Your task to perform on an android device: What is the recent news? Image 0: 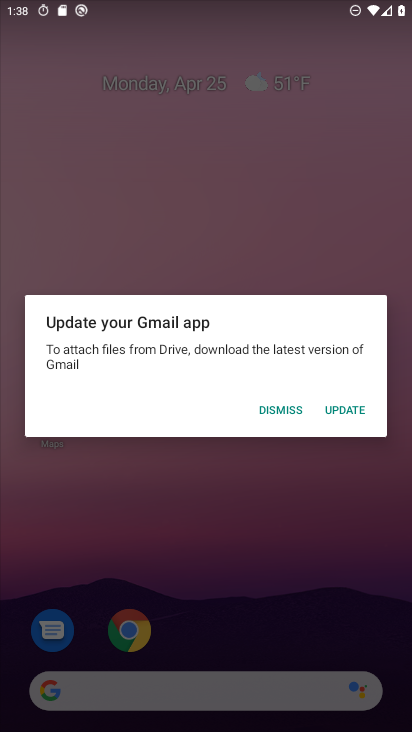
Step 0: drag from (197, 573) to (280, 291)
Your task to perform on an android device: What is the recent news? Image 1: 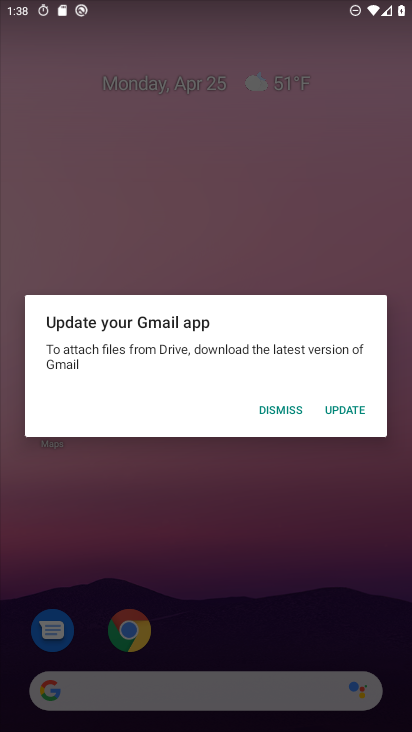
Step 1: drag from (236, 361) to (234, 212)
Your task to perform on an android device: What is the recent news? Image 2: 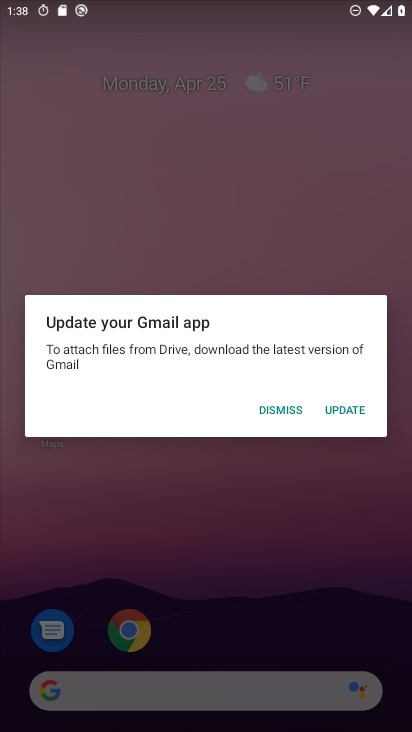
Step 2: drag from (194, 420) to (216, 224)
Your task to perform on an android device: What is the recent news? Image 3: 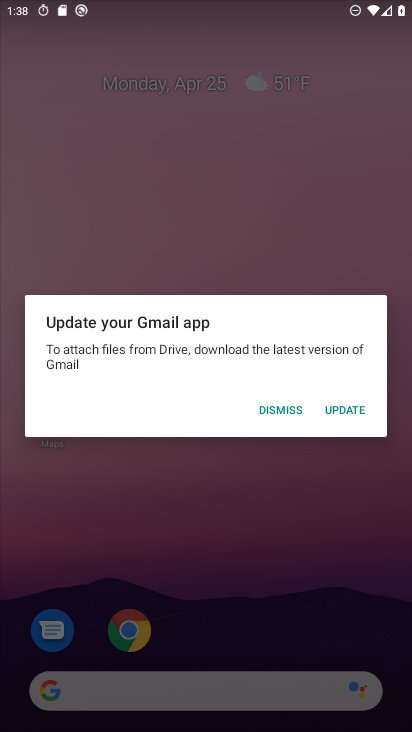
Step 3: press home button
Your task to perform on an android device: What is the recent news? Image 4: 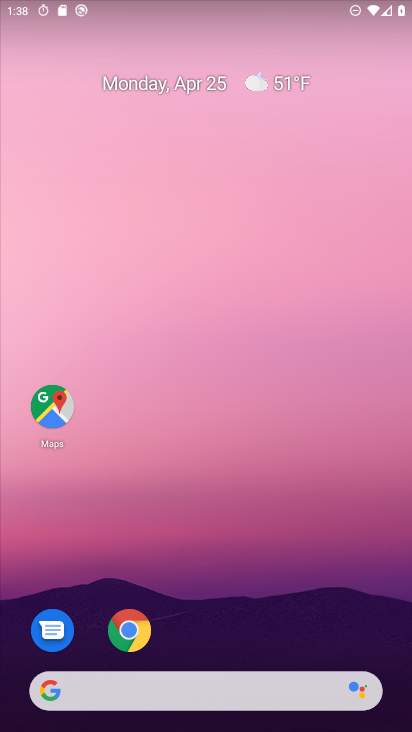
Step 4: drag from (203, 640) to (257, 108)
Your task to perform on an android device: What is the recent news? Image 5: 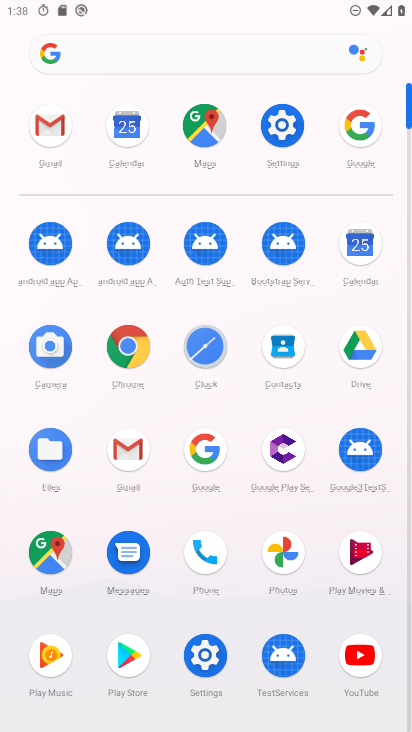
Step 5: click (152, 56)
Your task to perform on an android device: What is the recent news? Image 6: 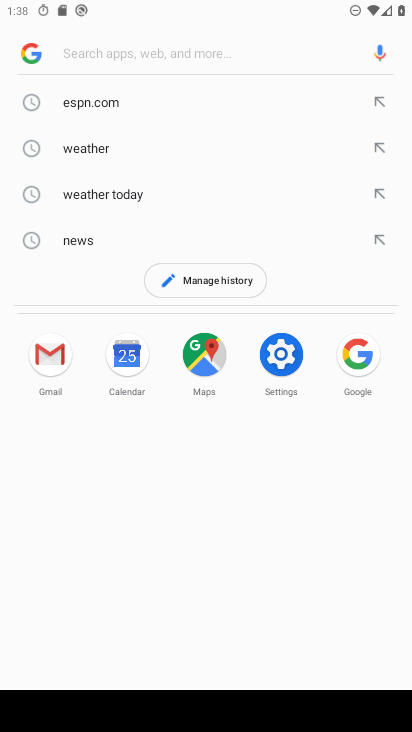
Step 6: click (112, 245)
Your task to perform on an android device: What is the recent news? Image 7: 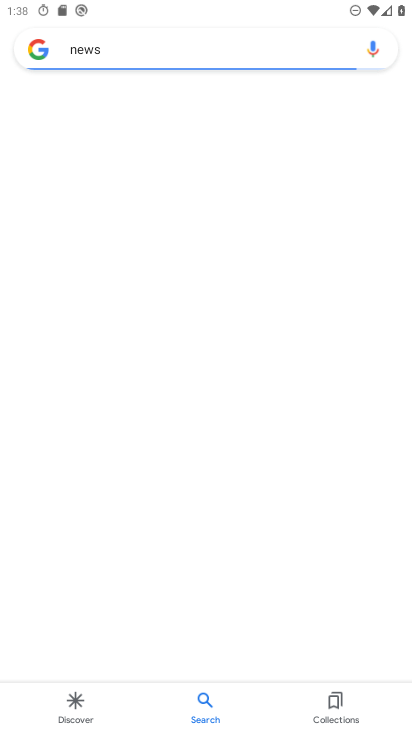
Step 7: task complete